Your task to perform on an android device: Open Amazon Image 0: 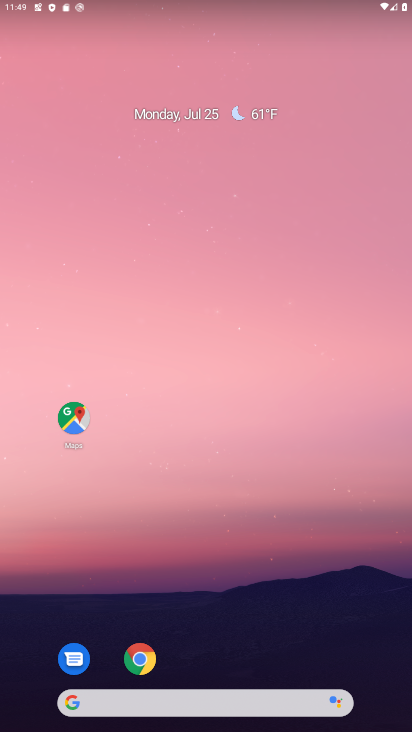
Step 0: click (143, 659)
Your task to perform on an android device: Open Amazon Image 1: 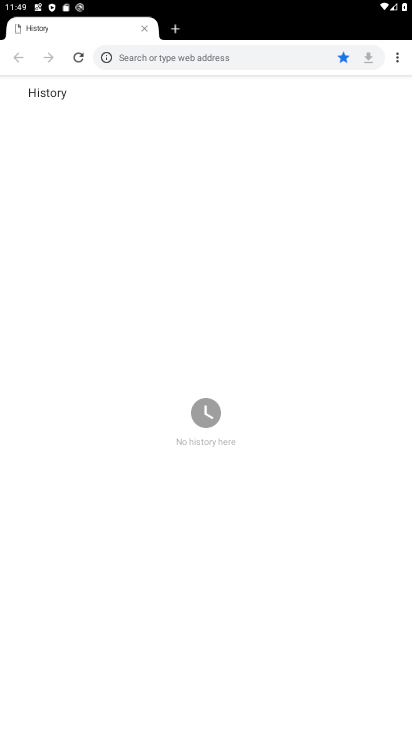
Step 1: click (398, 58)
Your task to perform on an android device: Open Amazon Image 2: 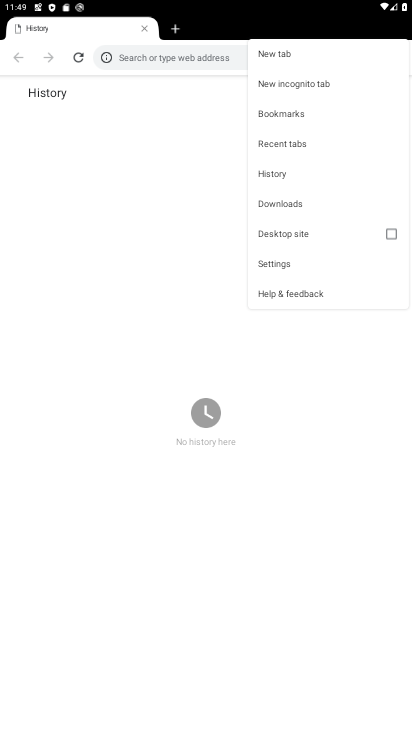
Step 2: click (281, 53)
Your task to perform on an android device: Open Amazon Image 3: 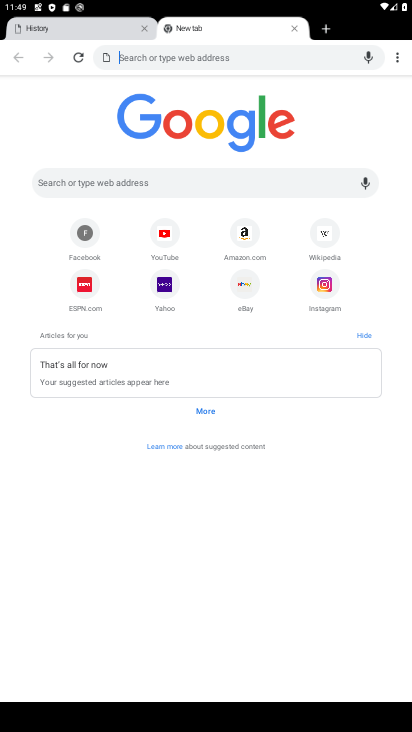
Step 3: click (243, 236)
Your task to perform on an android device: Open Amazon Image 4: 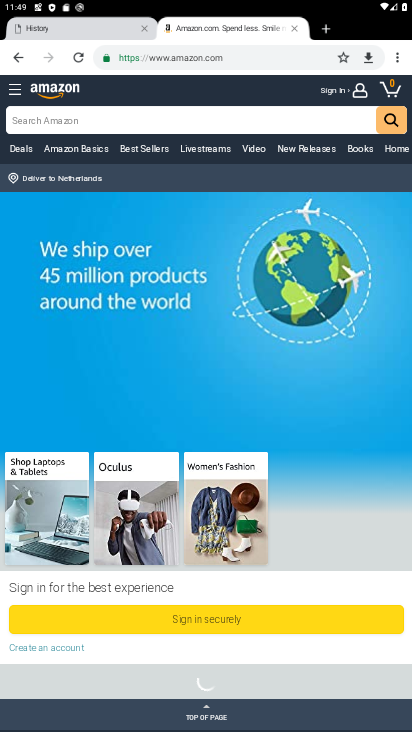
Step 4: task complete